Your task to perform on an android device: Open Yahoo.com Image 0: 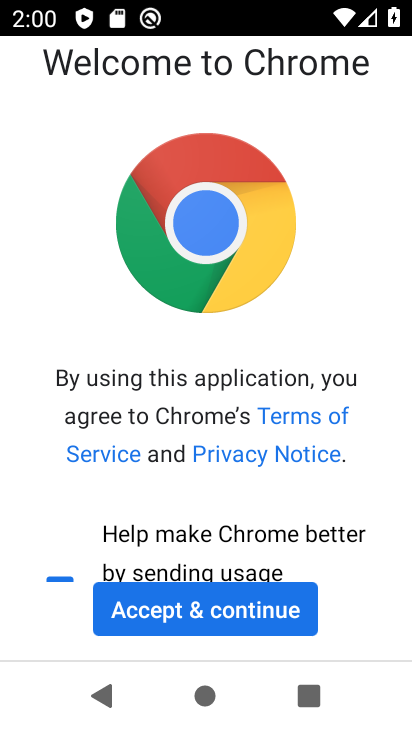
Step 0: click (213, 611)
Your task to perform on an android device: Open Yahoo.com Image 1: 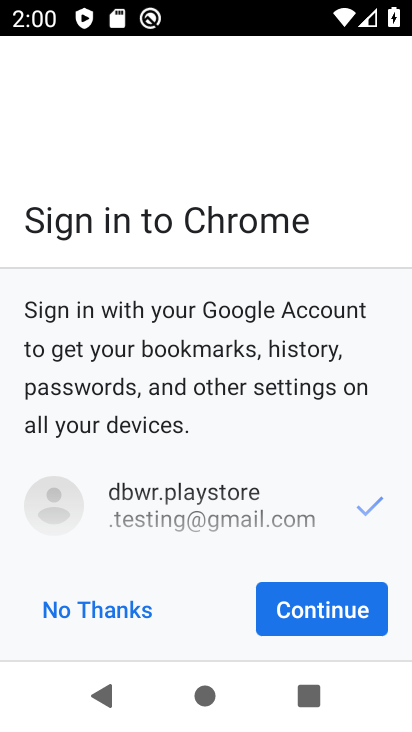
Step 1: click (332, 604)
Your task to perform on an android device: Open Yahoo.com Image 2: 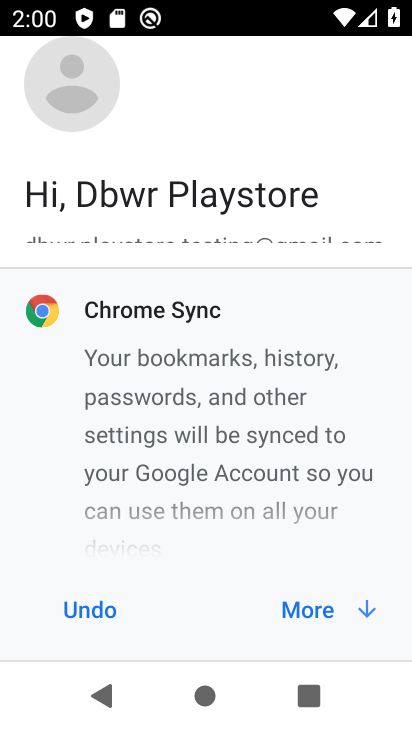
Step 2: click (332, 604)
Your task to perform on an android device: Open Yahoo.com Image 3: 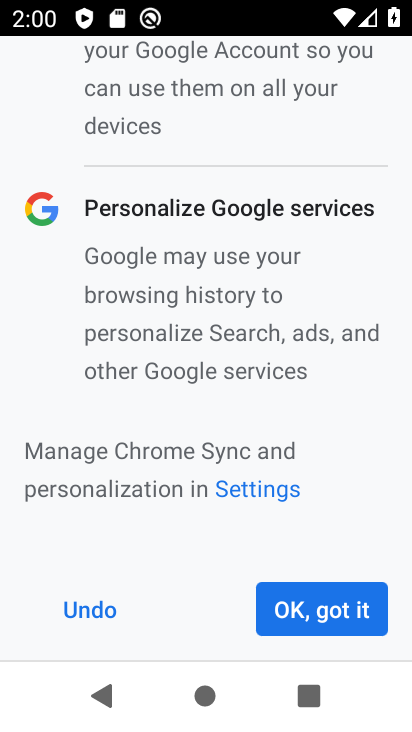
Step 3: click (332, 604)
Your task to perform on an android device: Open Yahoo.com Image 4: 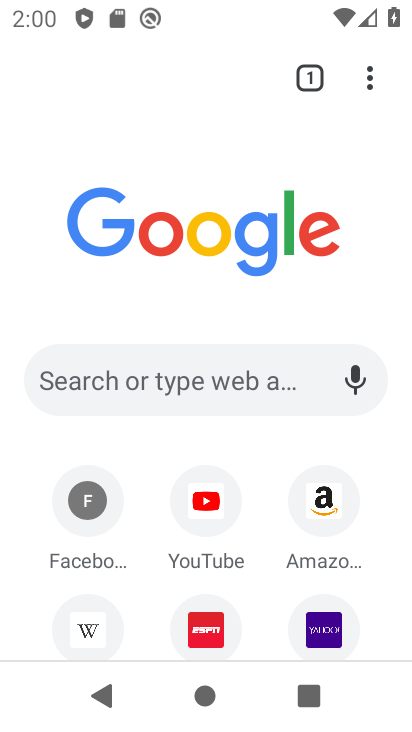
Step 4: click (326, 612)
Your task to perform on an android device: Open Yahoo.com Image 5: 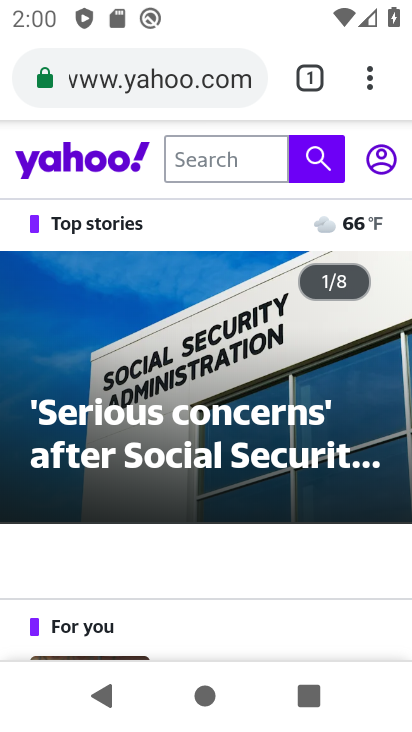
Step 5: task complete